Your task to perform on an android device: allow cookies in the chrome app Image 0: 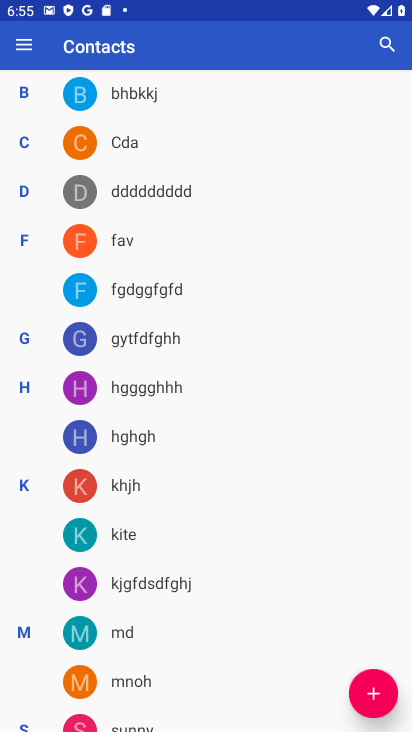
Step 0: press home button
Your task to perform on an android device: allow cookies in the chrome app Image 1: 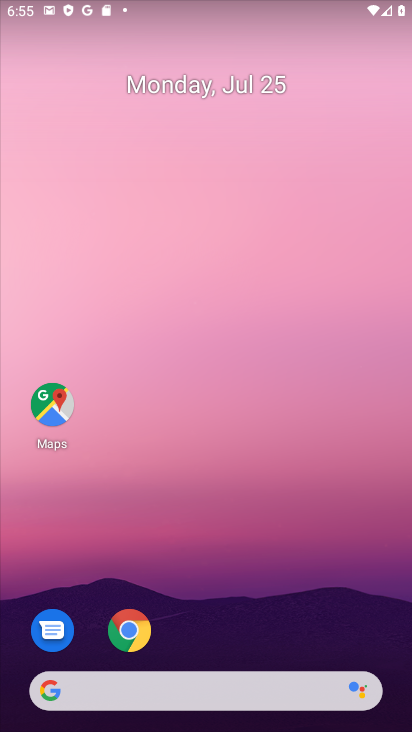
Step 1: click (137, 634)
Your task to perform on an android device: allow cookies in the chrome app Image 2: 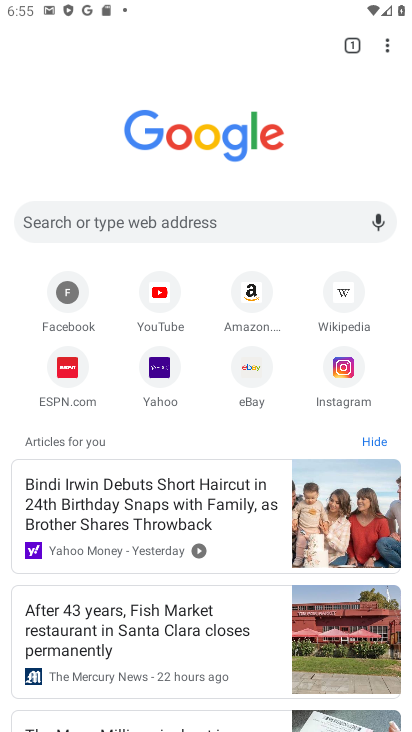
Step 2: click (391, 46)
Your task to perform on an android device: allow cookies in the chrome app Image 3: 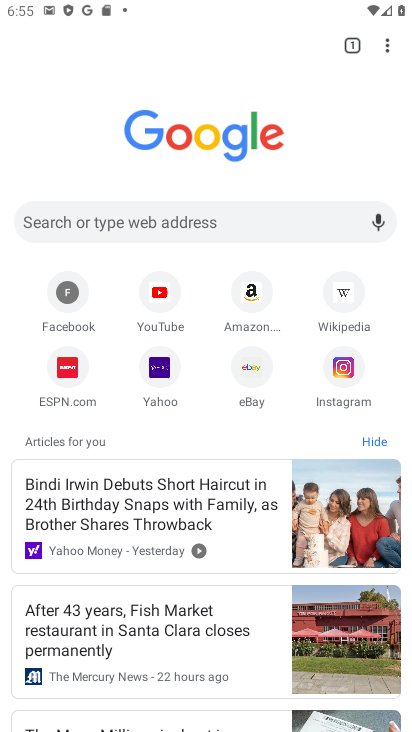
Step 3: click (383, 45)
Your task to perform on an android device: allow cookies in the chrome app Image 4: 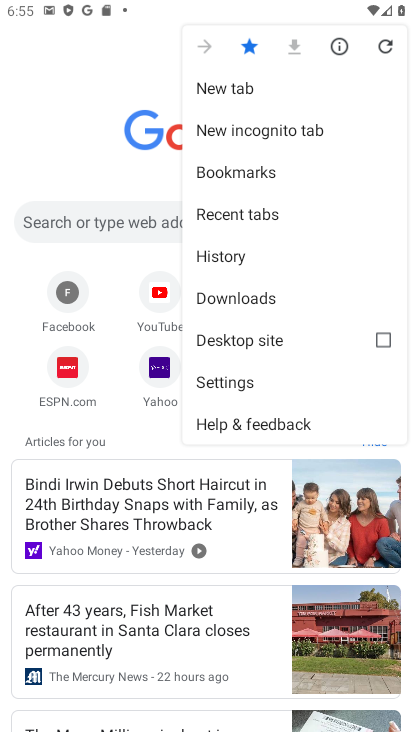
Step 4: click (224, 384)
Your task to perform on an android device: allow cookies in the chrome app Image 5: 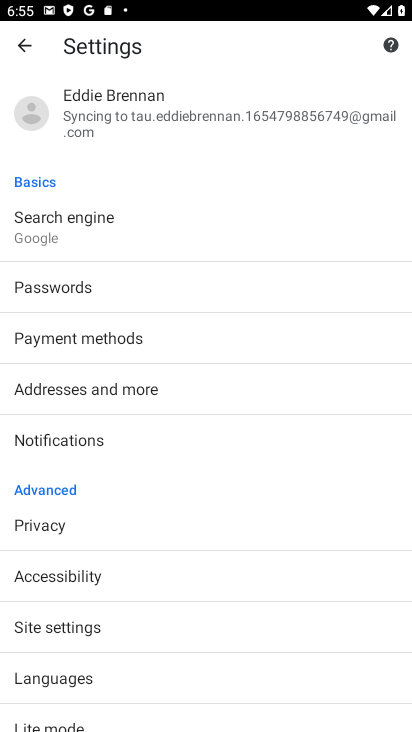
Step 5: click (72, 626)
Your task to perform on an android device: allow cookies in the chrome app Image 6: 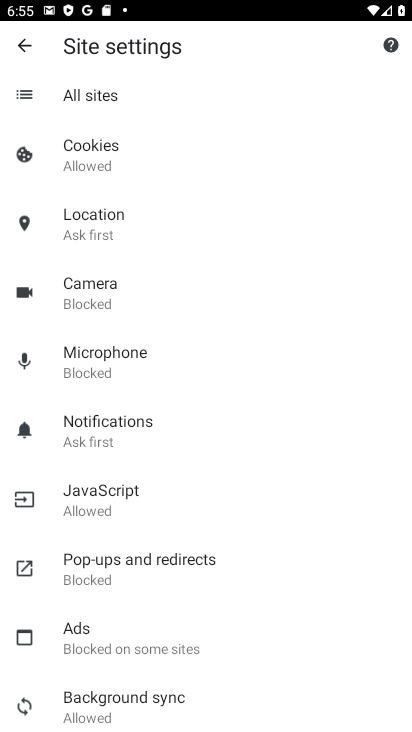
Step 6: click (117, 153)
Your task to perform on an android device: allow cookies in the chrome app Image 7: 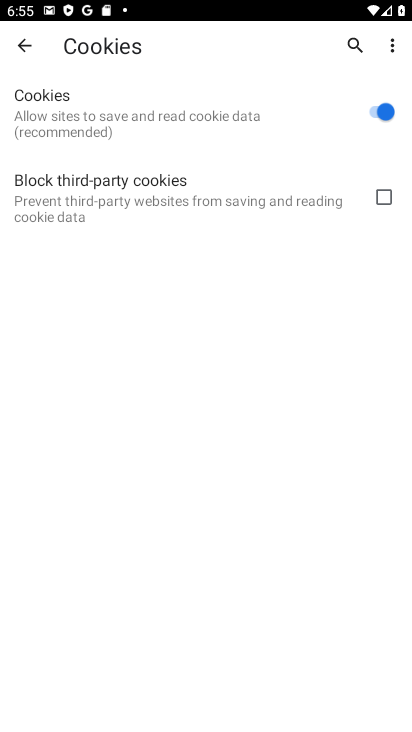
Step 7: click (402, 114)
Your task to perform on an android device: allow cookies in the chrome app Image 8: 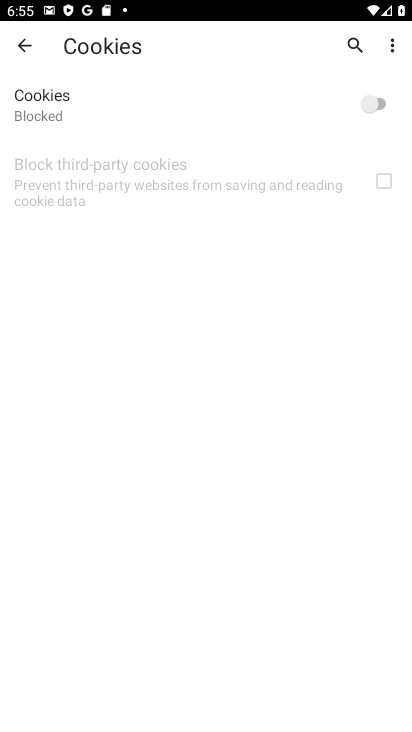
Step 8: click (402, 114)
Your task to perform on an android device: allow cookies in the chrome app Image 9: 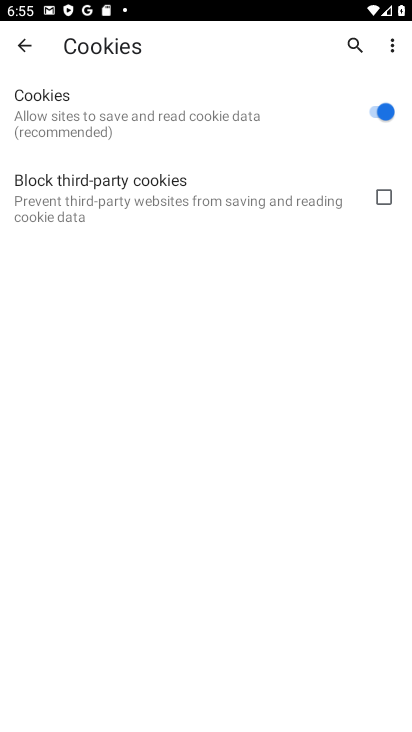
Step 9: task complete